Your task to perform on an android device: change the clock display to digital Image 0: 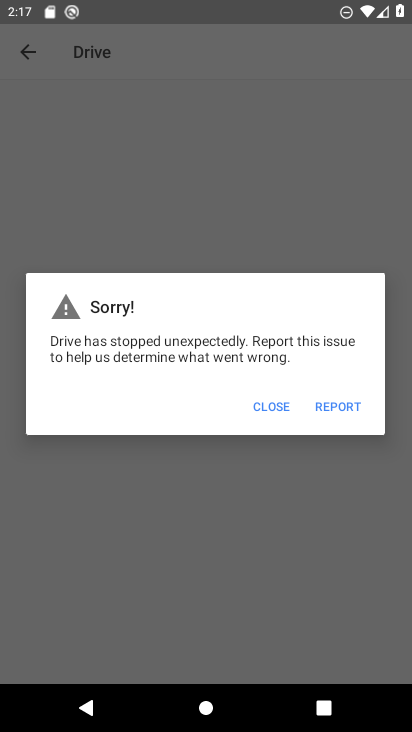
Step 0: press home button
Your task to perform on an android device: change the clock display to digital Image 1: 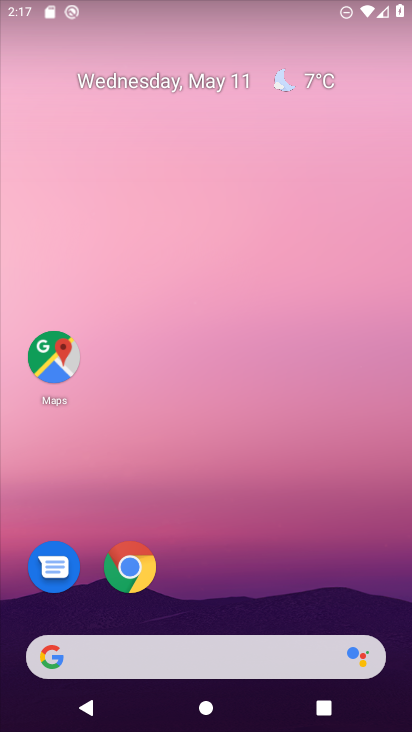
Step 1: drag from (311, 568) to (272, 162)
Your task to perform on an android device: change the clock display to digital Image 2: 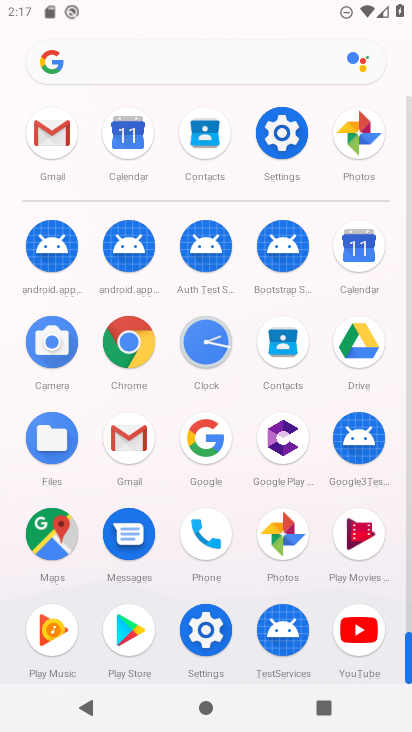
Step 2: click (193, 351)
Your task to perform on an android device: change the clock display to digital Image 3: 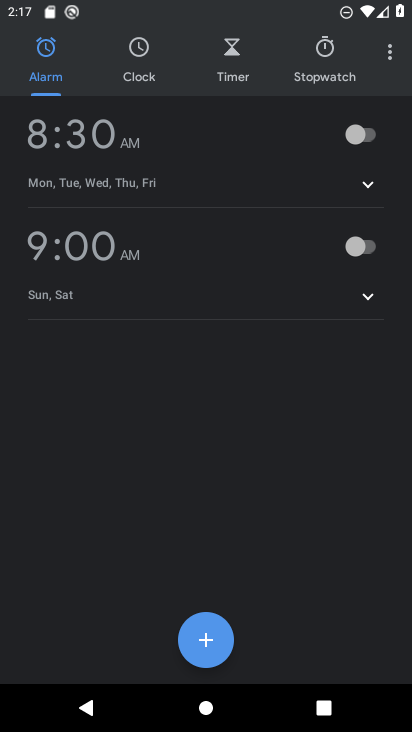
Step 3: click (395, 64)
Your task to perform on an android device: change the clock display to digital Image 4: 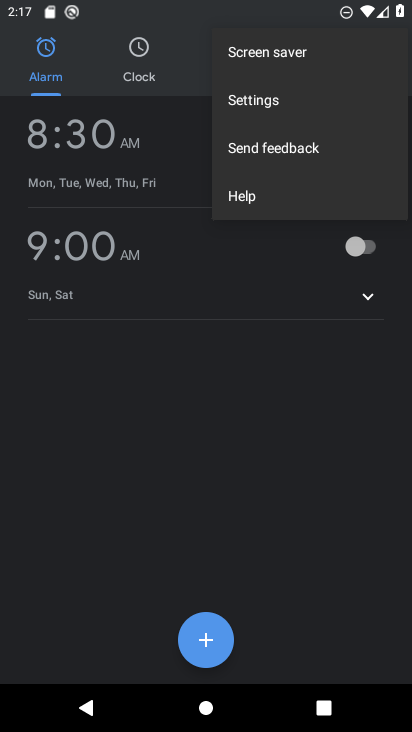
Step 4: click (263, 107)
Your task to perform on an android device: change the clock display to digital Image 5: 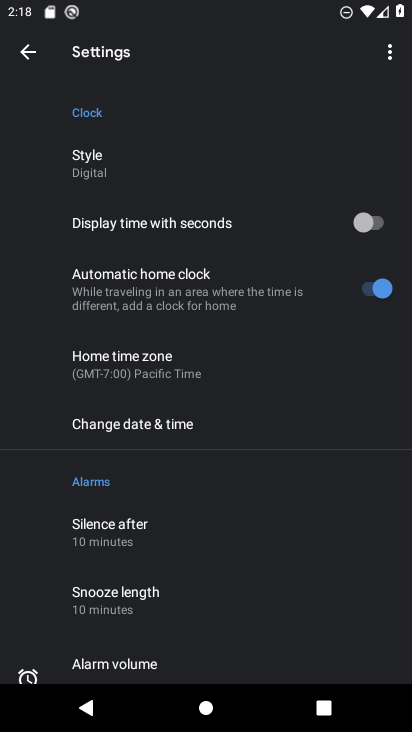
Step 5: click (133, 159)
Your task to perform on an android device: change the clock display to digital Image 6: 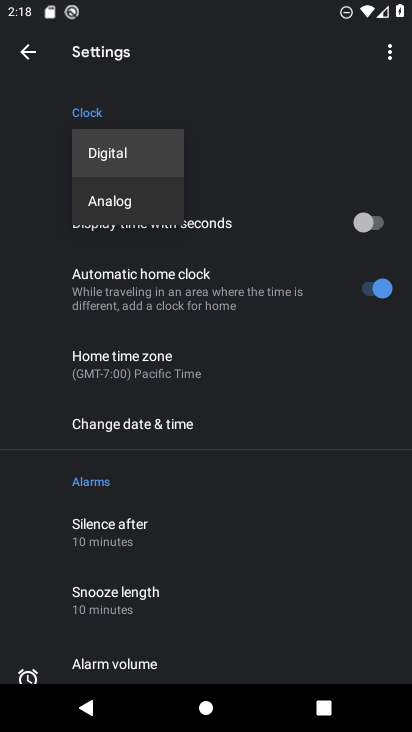
Step 6: task complete